Your task to perform on an android device: turn on airplane mode Image 0: 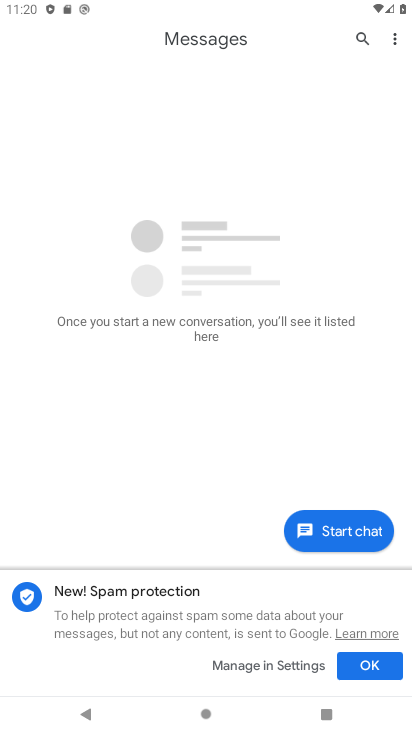
Step 0: drag from (343, 10) to (310, 623)
Your task to perform on an android device: turn on airplane mode Image 1: 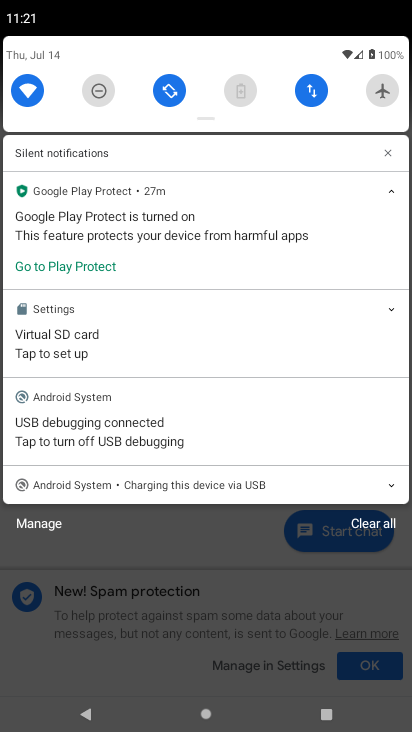
Step 1: drag from (276, 89) to (163, 554)
Your task to perform on an android device: turn on airplane mode Image 2: 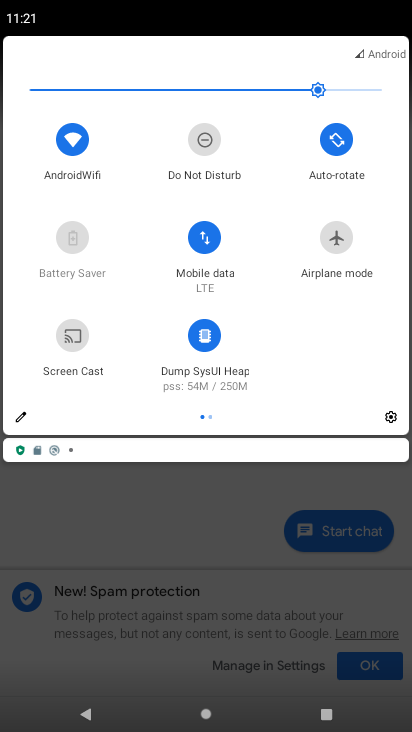
Step 2: click (321, 248)
Your task to perform on an android device: turn on airplane mode Image 3: 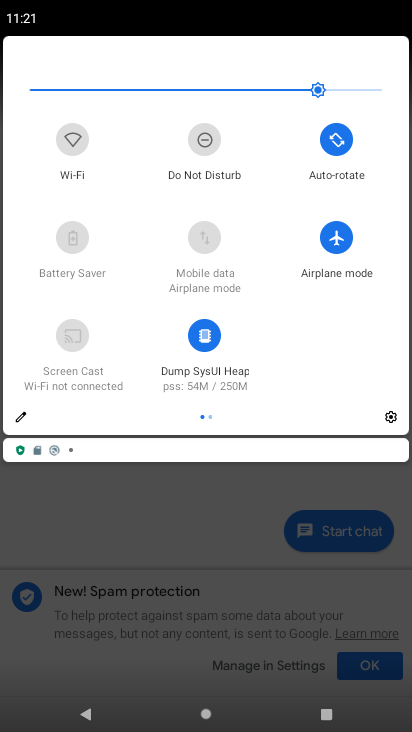
Step 3: task complete